Your task to perform on an android device: turn off location Image 0: 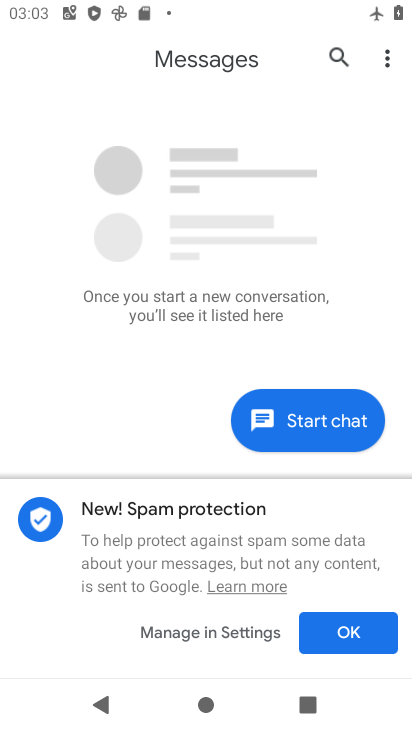
Step 0: press home button
Your task to perform on an android device: turn off location Image 1: 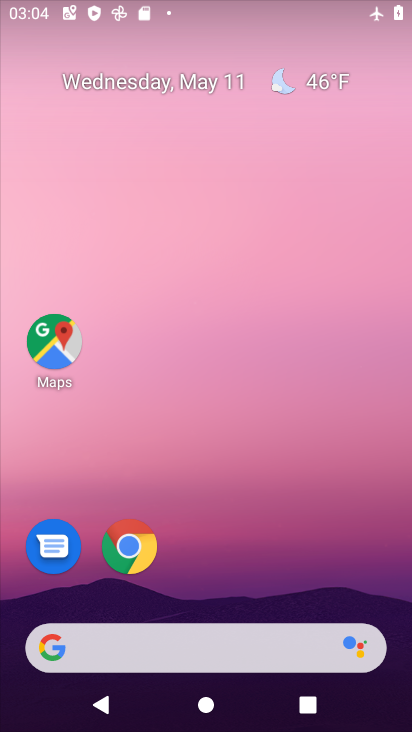
Step 1: drag from (202, 554) to (276, 50)
Your task to perform on an android device: turn off location Image 2: 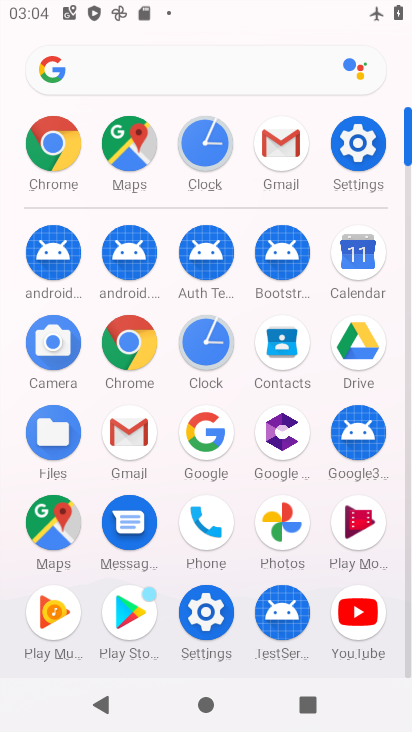
Step 2: click (364, 130)
Your task to perform on an android device: turn off location Image 3: 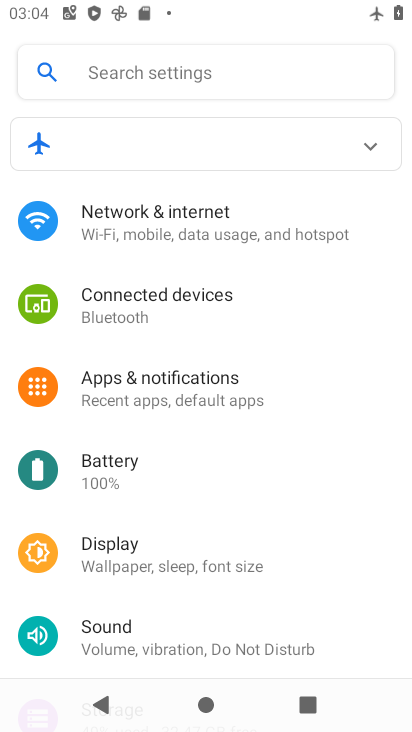
Step 3: drag from (209, 587) to (303, 192)
Your task to perform on an android device: turn off location Image 4: 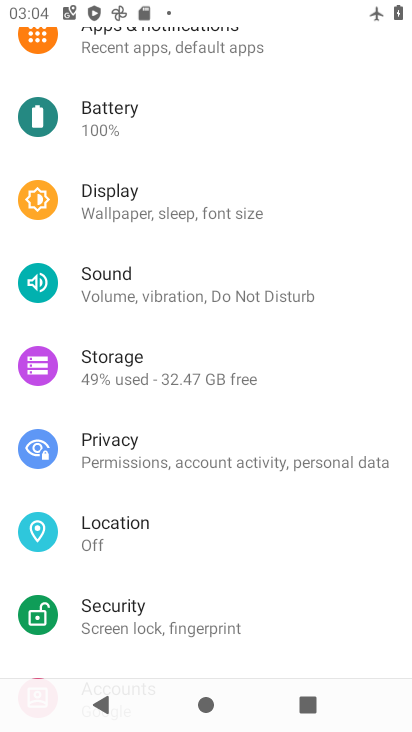
Step 4: click (150, 534)
Your task to perform on an android device: turn off location Image 5: 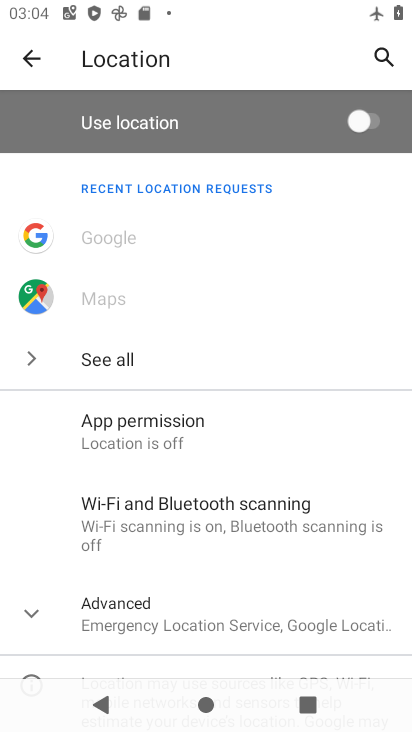
Step 5: task complete